Your task to perform on an android device: check data usage Image 0: 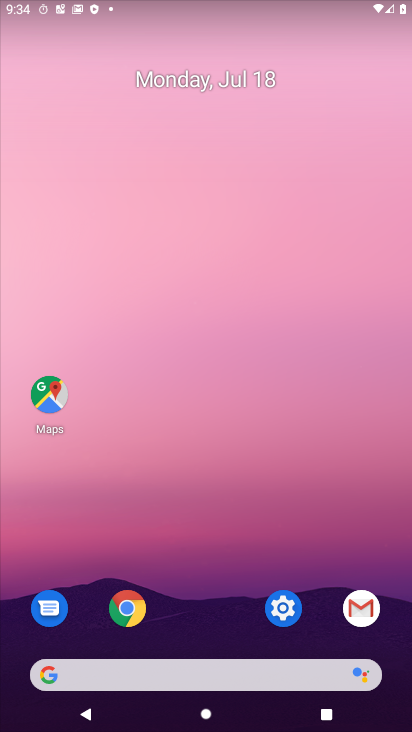
Step 0: click (270, 612)
Your task to perform on an android device: check data usage Image 1: 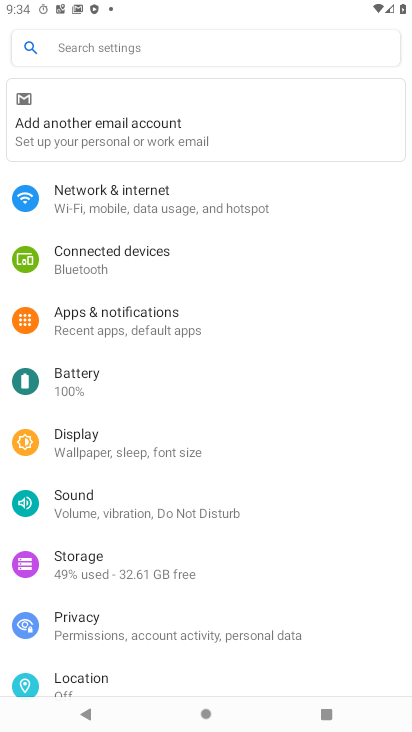
Step 1: click (112, 57)
Your task to perform on an android device: check data usage Image 2: 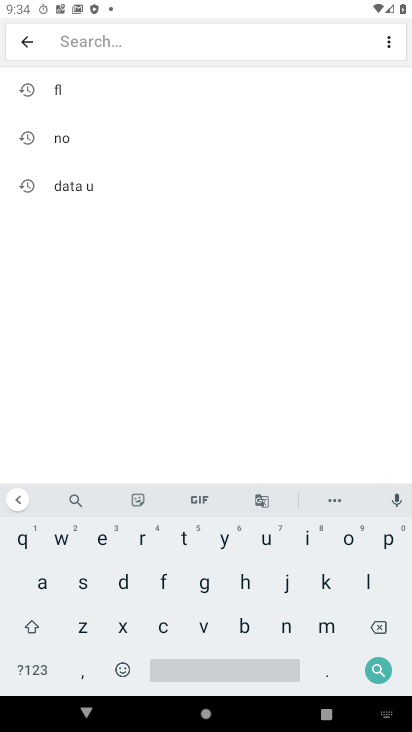
Step 2: click (83, 192)
Your task to perform on an android device: check data usage Image 3: 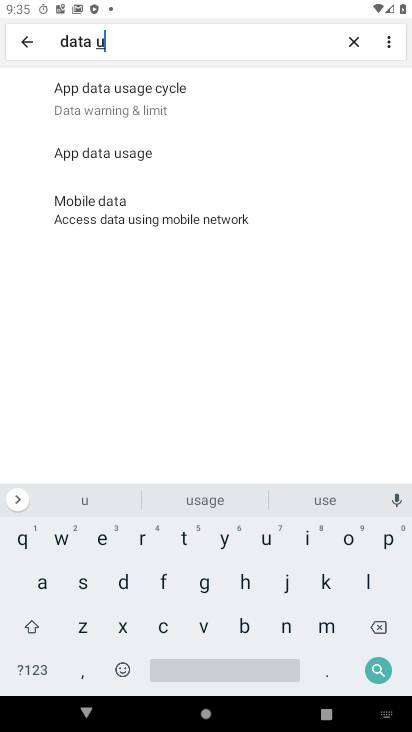
Step 3: click (113, 152)
Your task to perform on an android device: check data usage Image 4: 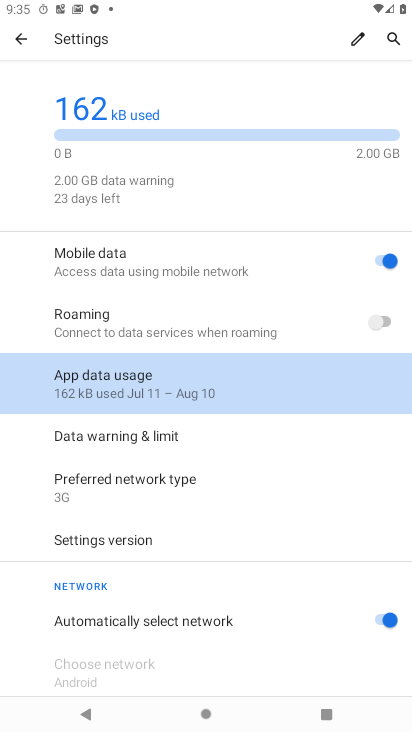
Step 4: click (167, 382)
Your task to perform on an android device: check data usage Image 5: 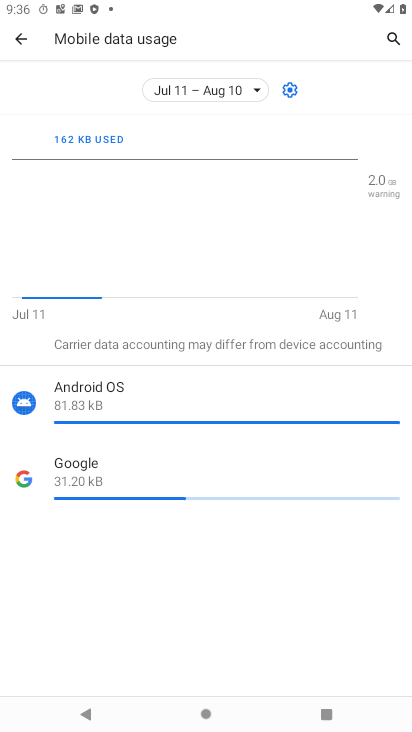
Step 5: task complete